Your task to perform on an android device: Go to sound settings Image 0: 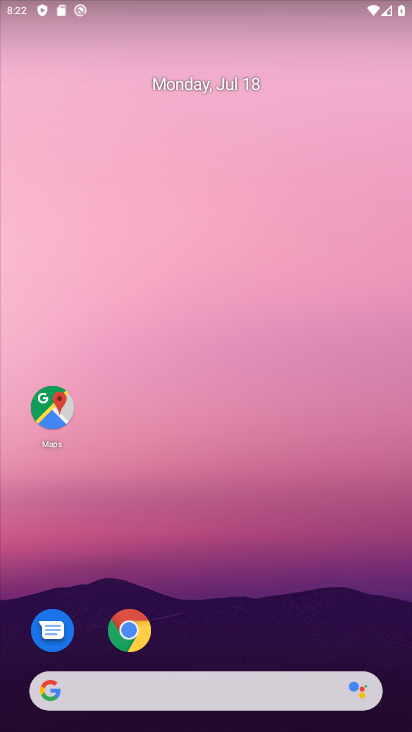
Step 0: drag from (182, 607) to (162, 233)
Your task to perform on an android device: Go to sound settings Image 1: 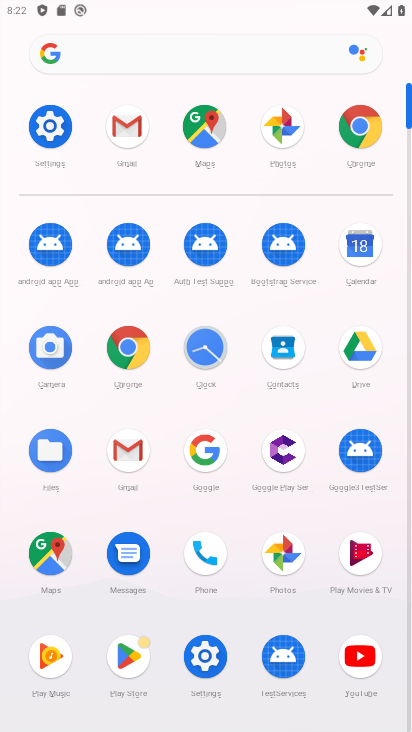
Step 1: click (50, 116)
Your task to perform on an android device: Go to sound settings Image 2: 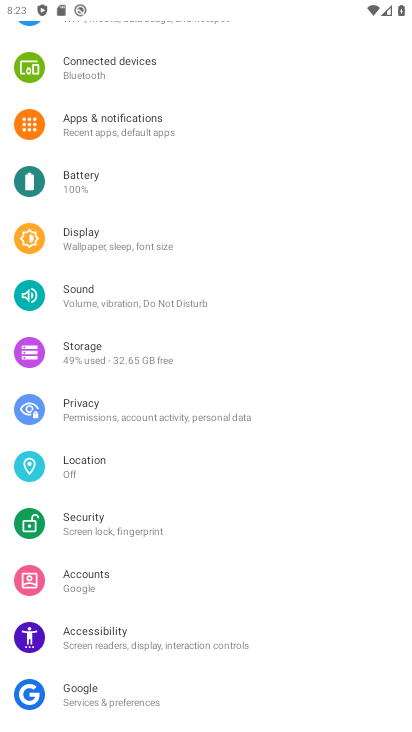
Step 2: click (112, 292)
Your task to perform on an android device: Go to sound settings Image 3: 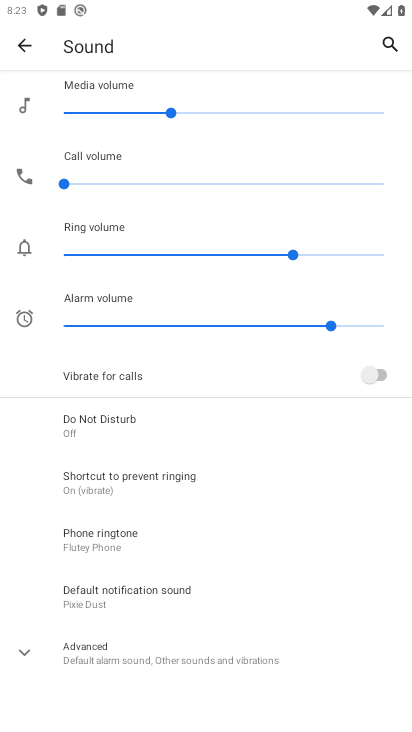
Step 3: task complete